Your task to perform on an android device: turn off translation in the chrome app Image 0: 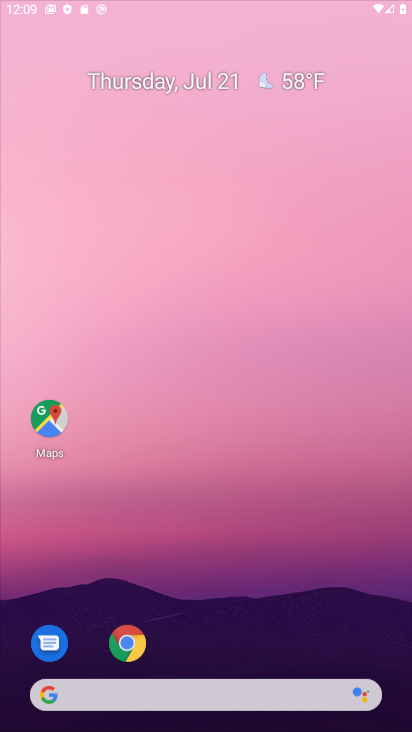
Step 0: click (233, 34)
Your task to perform on an android device: turn off translation in the chrome app Image 1: 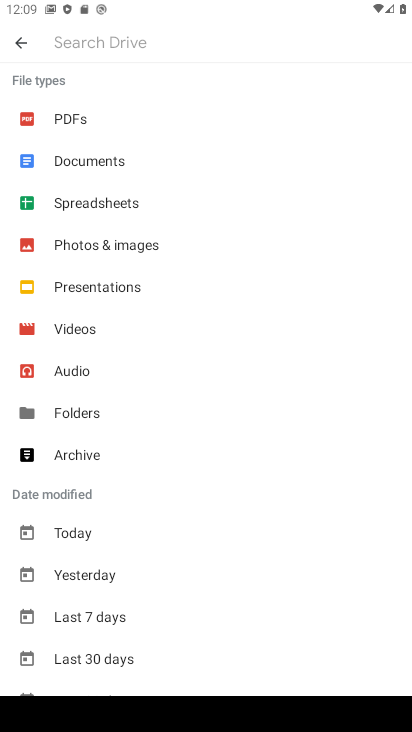
Step 1: press home button
Your task to perform on an android device: turn off translation in the chrome app Image 2: 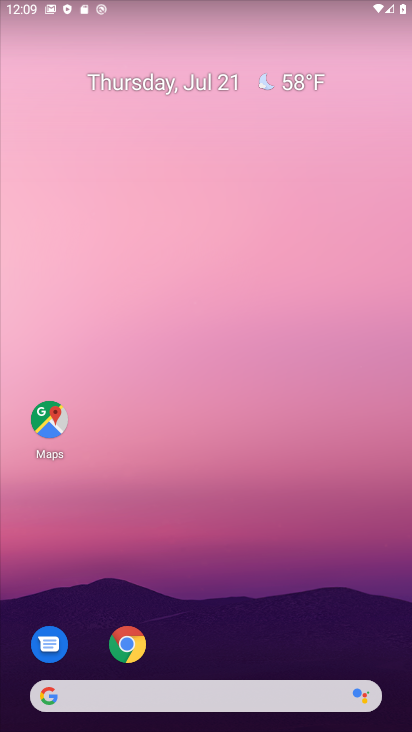
Step 2: drag from (205, 660) to (173, 108)
Your task to perform on an android device: turn off translation in the chrome app Image 3: 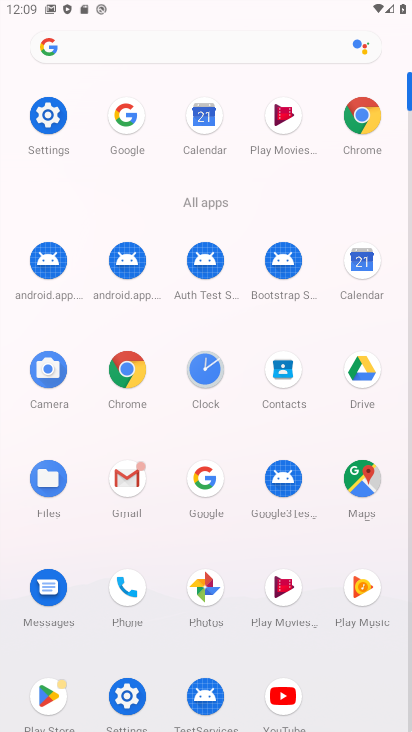
Step 3: click (135, 370)
Your task to perform on an android device: turn off translation in the chrome app Image 4: 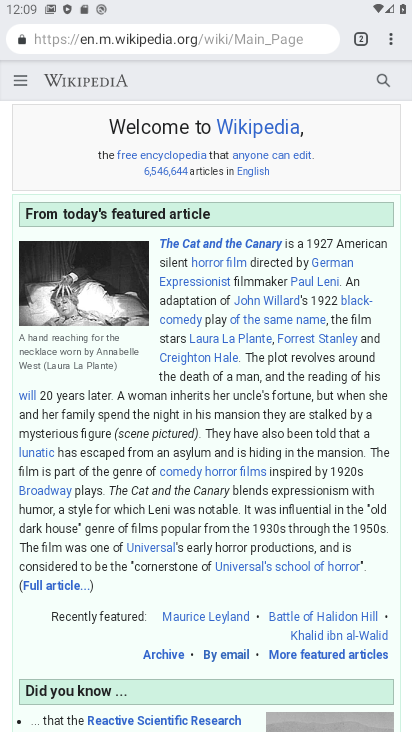
Step 4: click (396, 41)
Your task to perform on an android device: turn off translation in the chrome app Image 5: 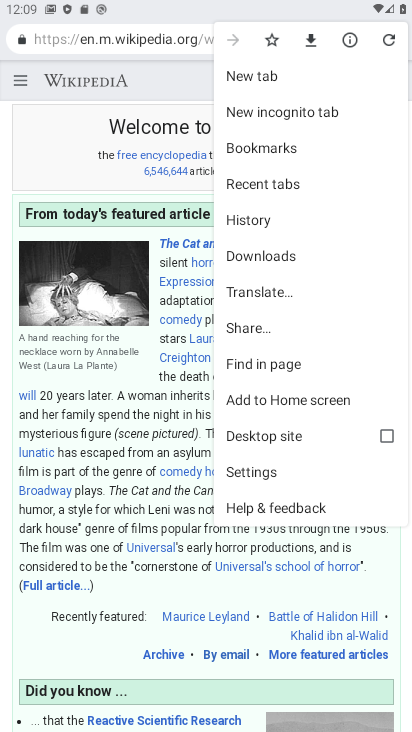
Step 5: click (224, 467)
Your task to perform on an android device: turn off translation in the chrome app Image 6: 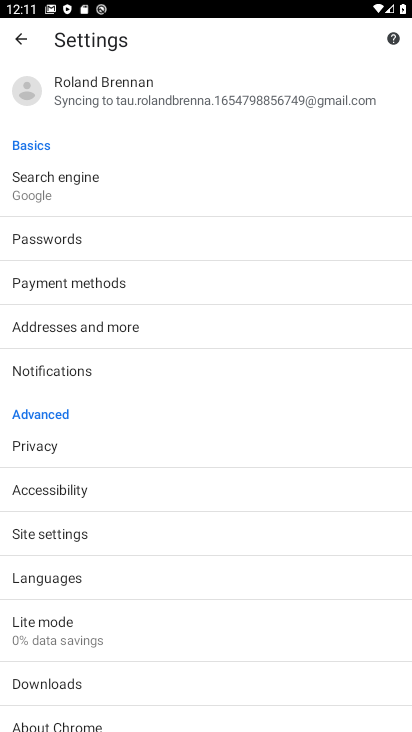
Step 6: click (67, 564)
Your task to perform on an android device: turn off translation in the chrome app Image 7: 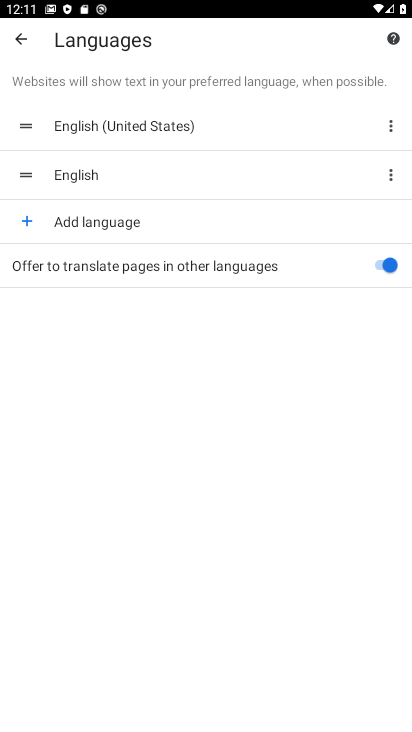
Step 7: click (396, 266)
Your task to perform on an android device: turn off translation in the chrome app Image 8: 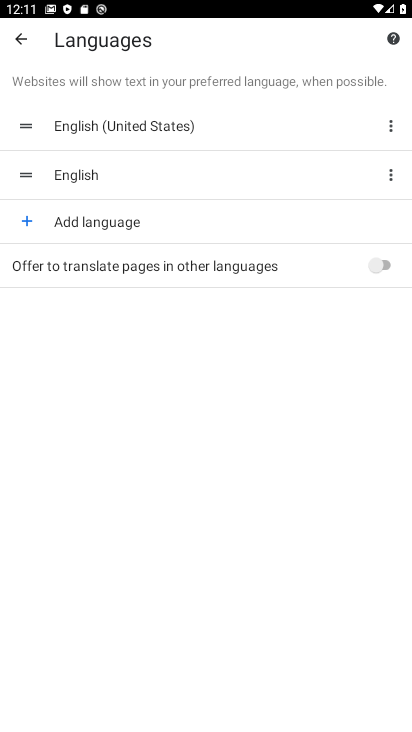
Step 8: task complete